Your task to perform on an android device: change the clock display to digital Image 0: 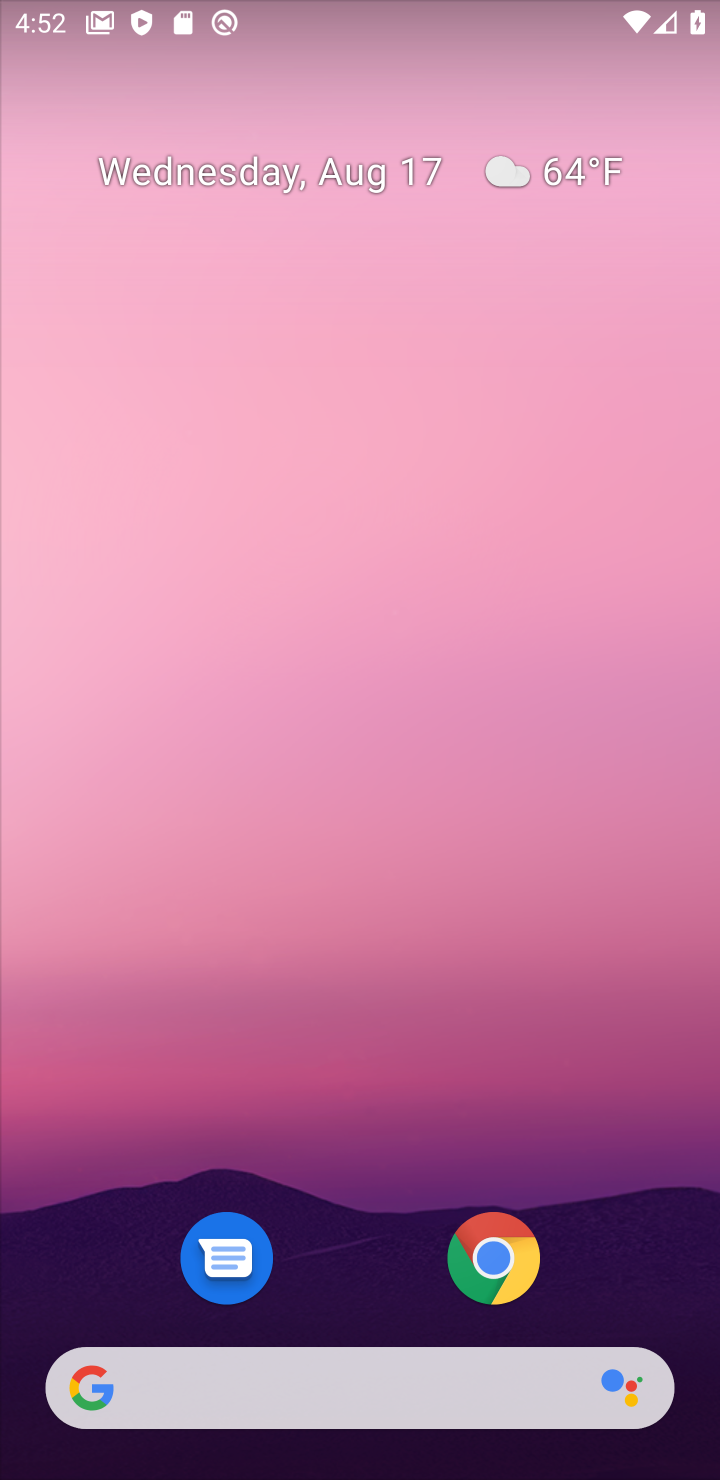
Step 0: drag from (333, 764) to (507, 26)
Your task to perform on an android device: change the clock display to digital Image 1: 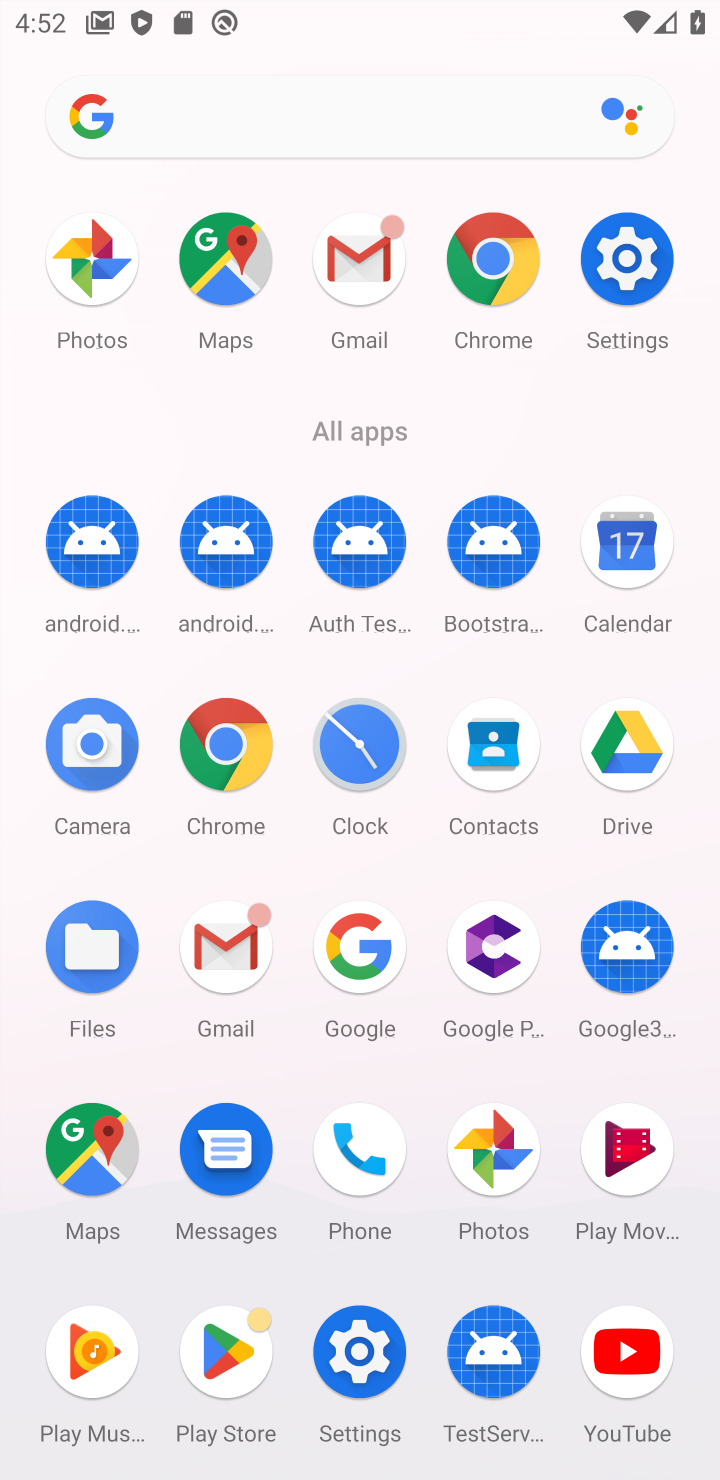
Step 1: click (356, 750)
Your task to perform on an android device: change the clock display to digital Image 2: 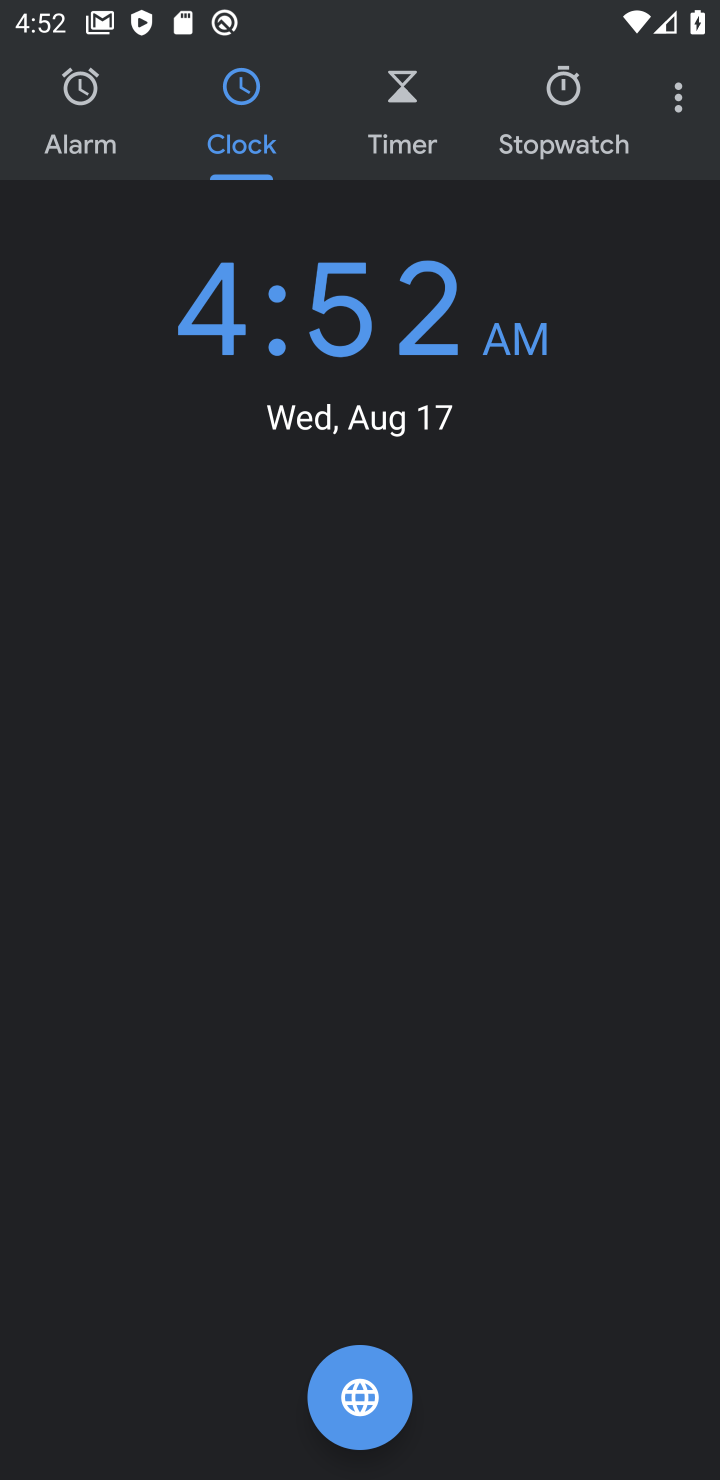
Step 2: click (675, 88)
Your task to perform on an android device: change the clock display to digital Image 3: 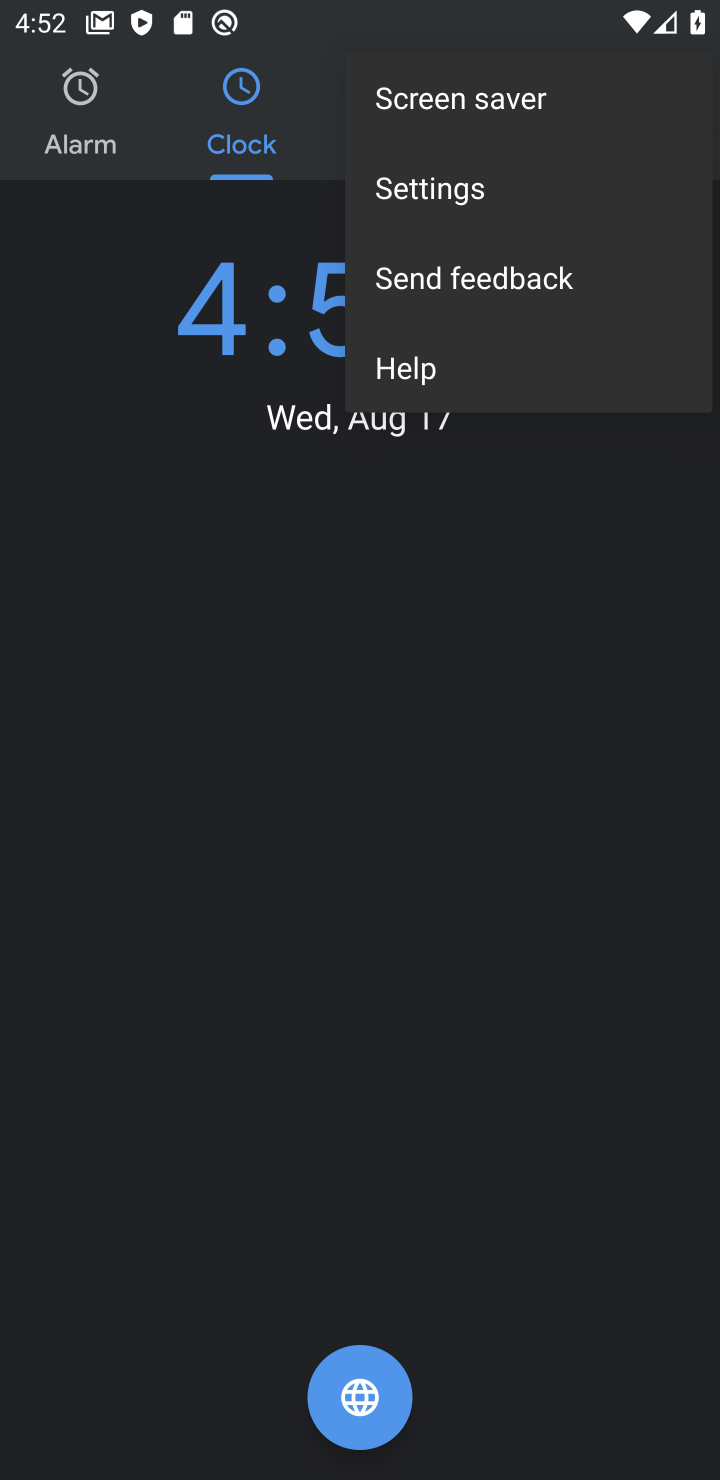
Step 3: click (453, 203)
Your task to perform on an android device: change the clock display to digital Image 4: 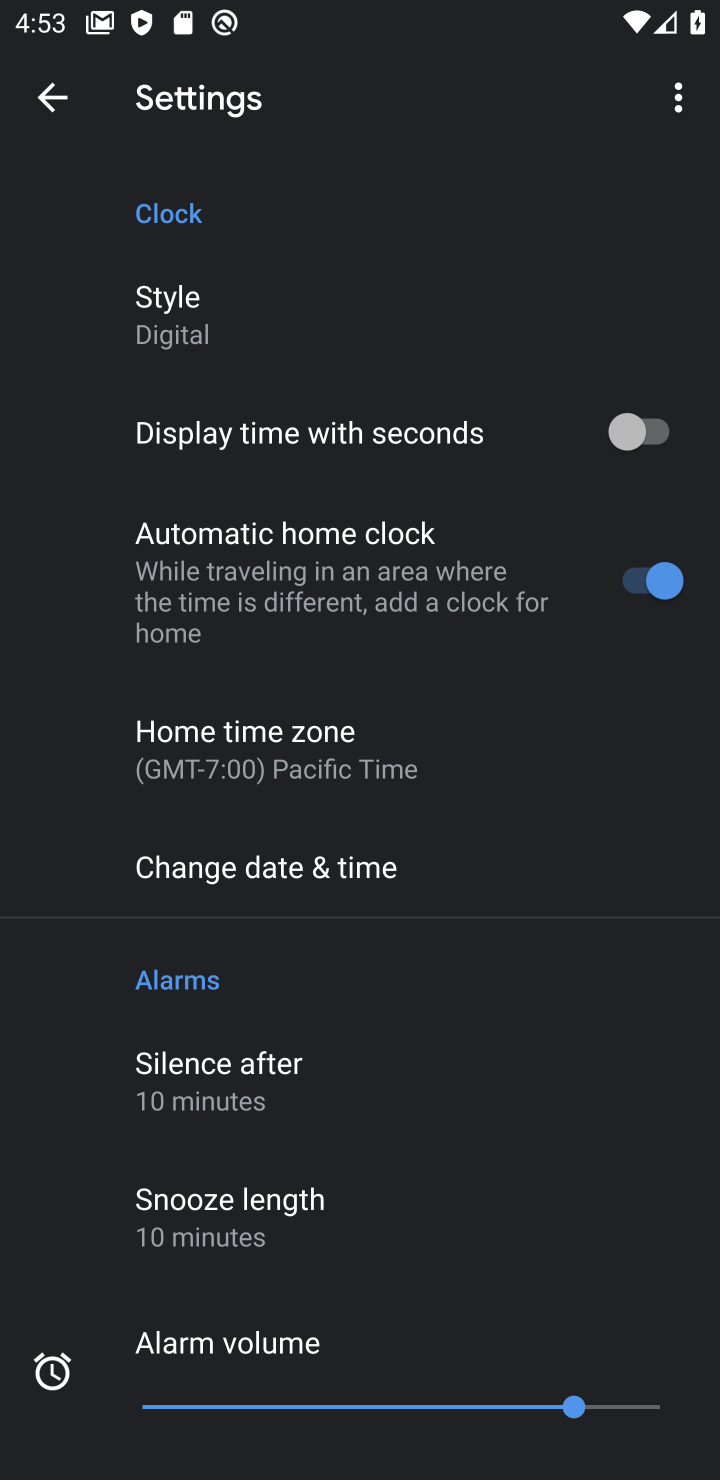
Step 4: click (219, 324)
Your task to perform on an android device: change the clock display to digital Image 5: 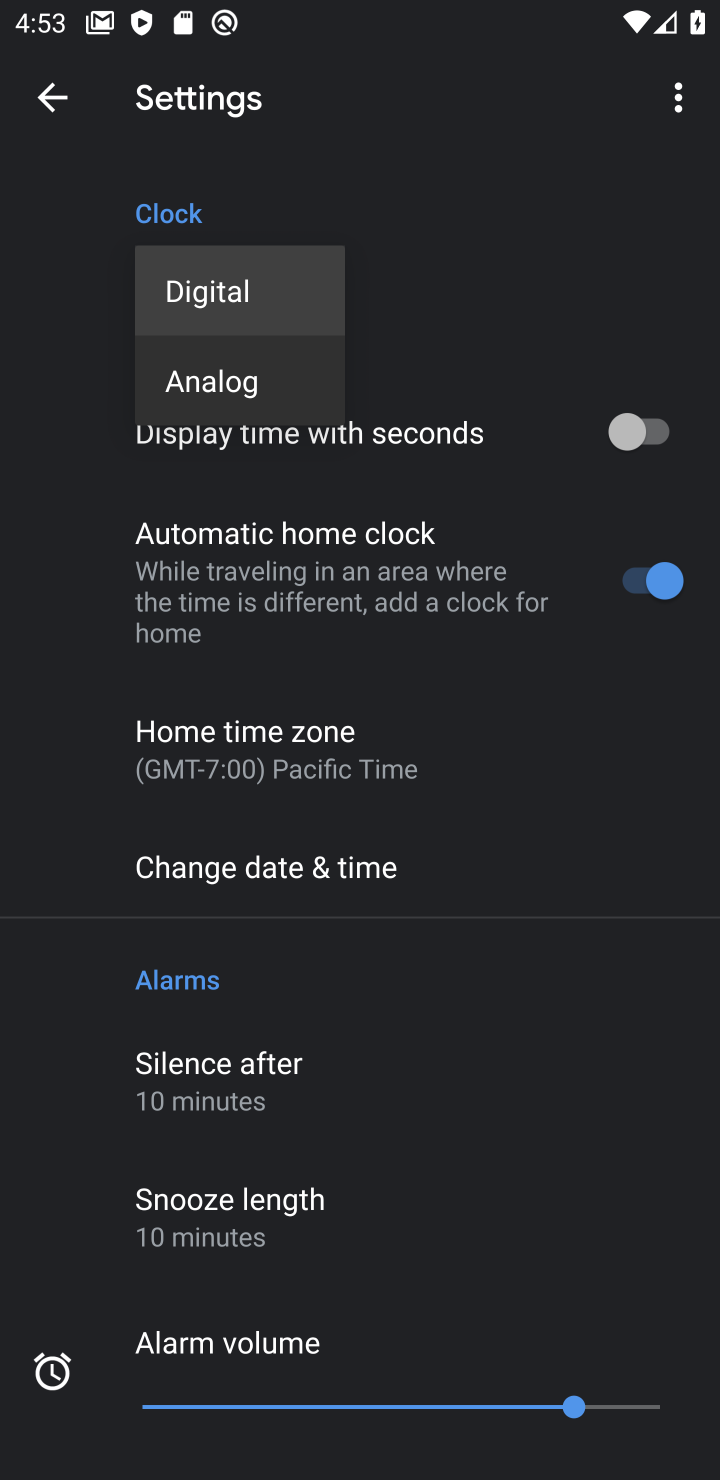
Step 5: task complete